Your task to perform on an android device: Open the stopwatch Image 0: 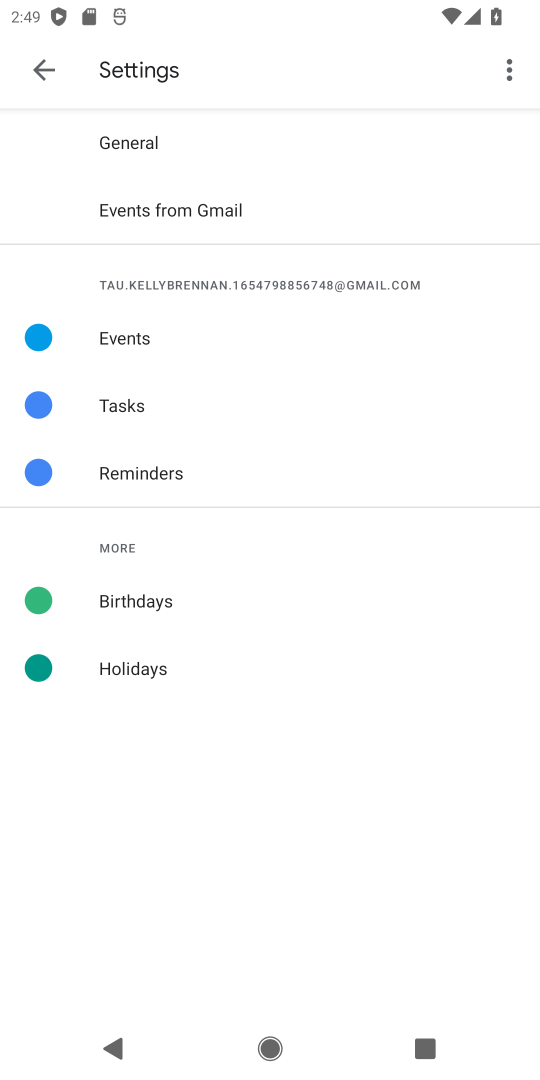
Step 0: press home button
Your task to perform on an android device: Open the stopwatch Image 1: 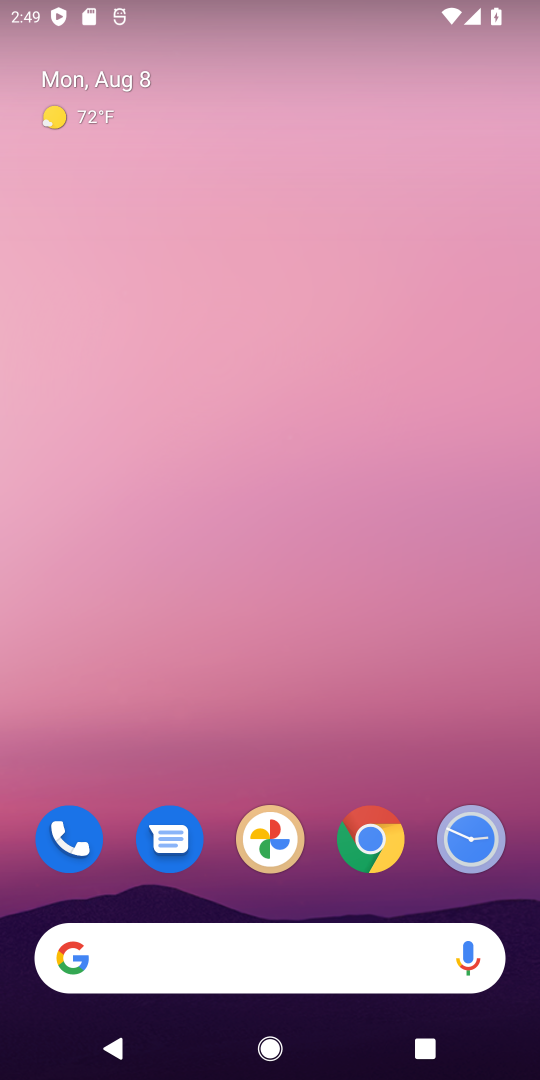
Step 1: drag from (410, 662) to (423, 163)
Your task to perform on an android device: Open the stopwatch Image 2: 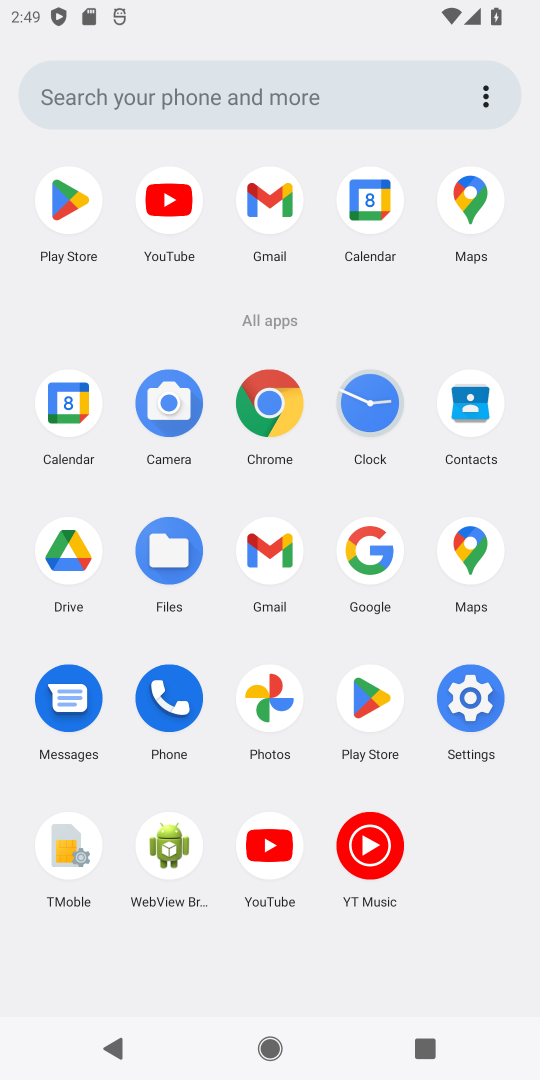
Step 2: click (369, 405)
Your task to perform on an android device: Open the stopwatch Image 3: 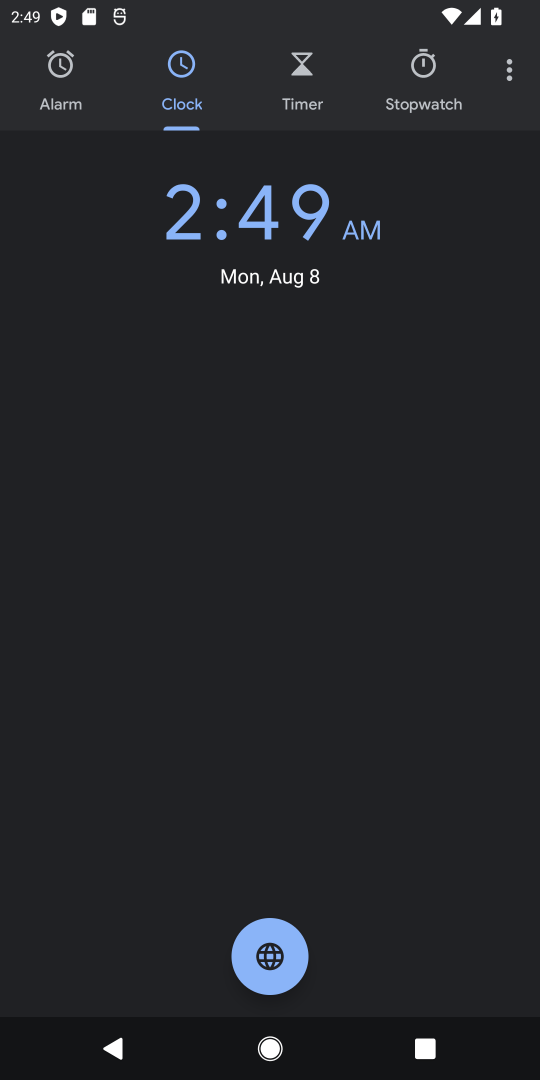
Step 3: click (430, 70)
Your task to perform on an android device: Open the stopwatch Image 4: 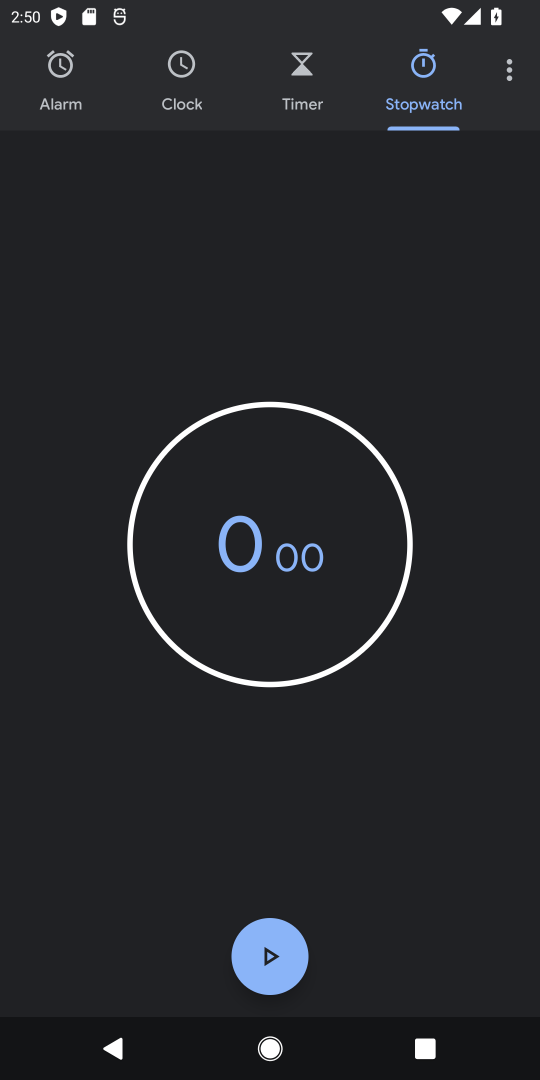
Step 4: task complete